Your task to perform on an android device: Add razer naga to the cart on amazon, then select checkout. Image 0: 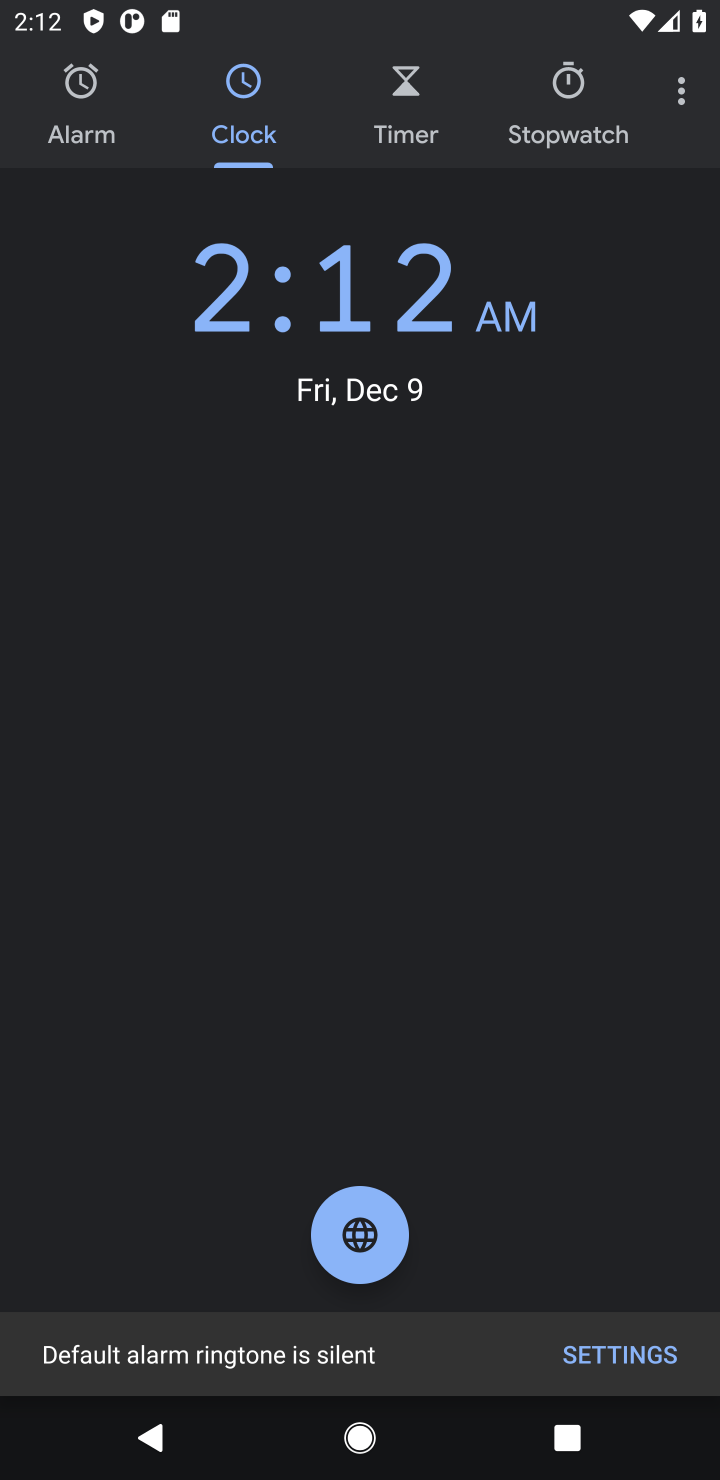
Step 0: press home button
Your task to perform on an android device: Add razer naga to the cart on amazon, then select checkout. Image 1: 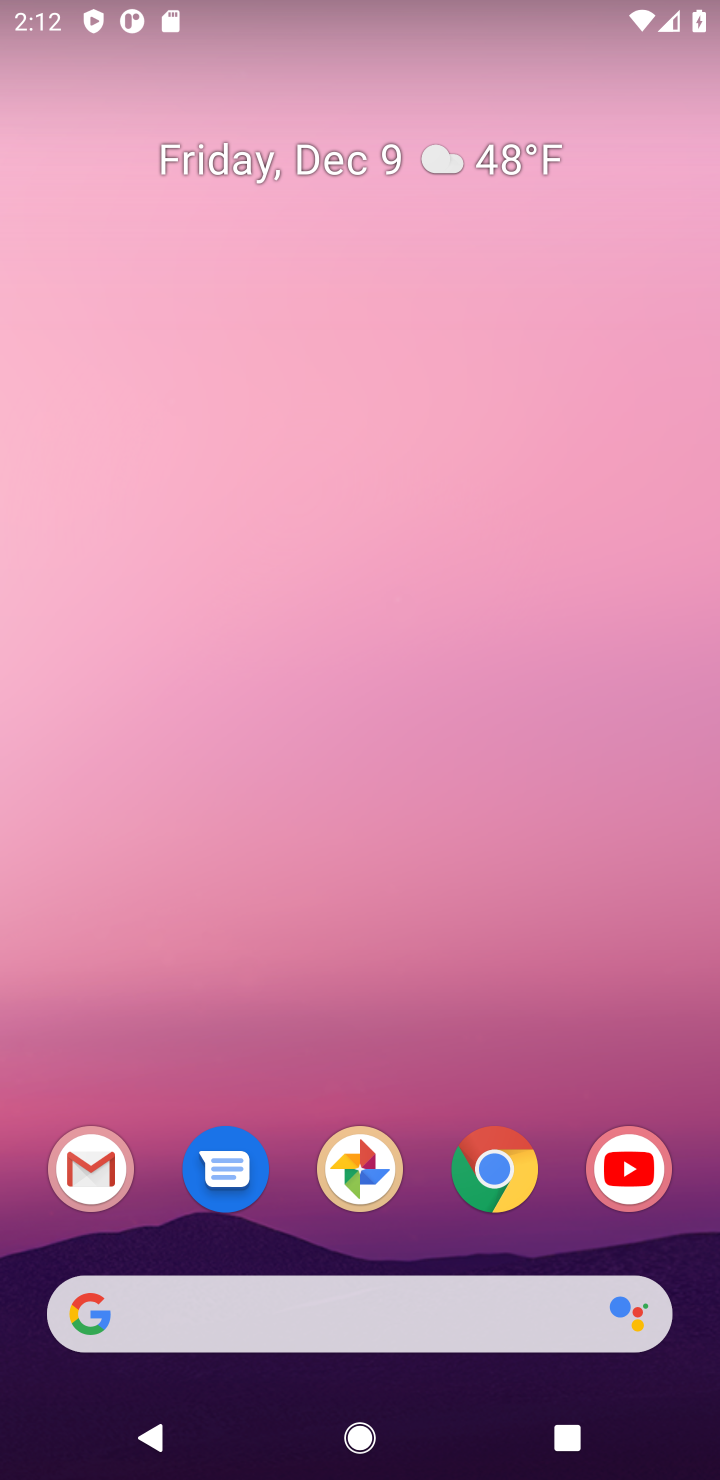
Step 1: click (498, 1179)
Your task to perform on an android device: Add razer naga to the cart on amazon, then select checkout. Image 2: 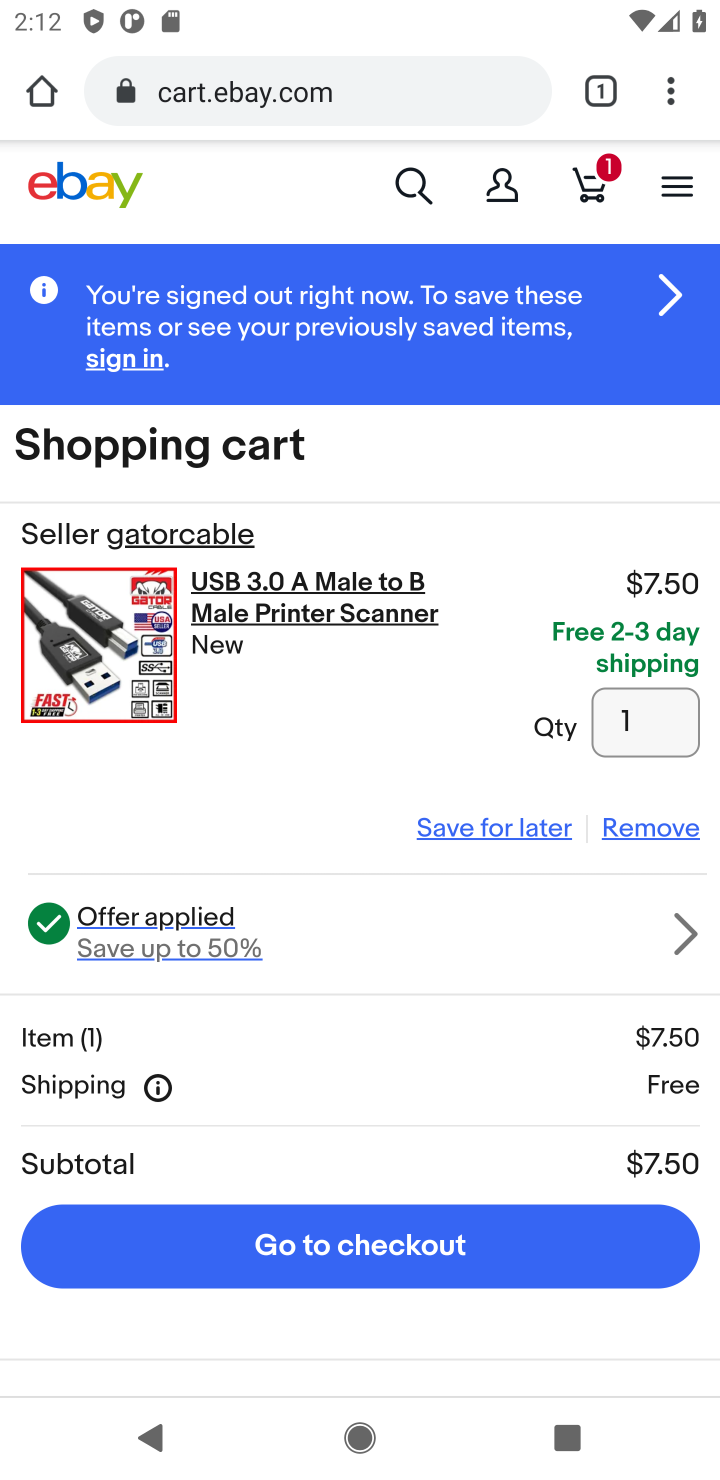
Step 2: click (427, 80)
Your task to perform on an android device: Add razer naga to the cart on amazon, then select checkout. Image 3: 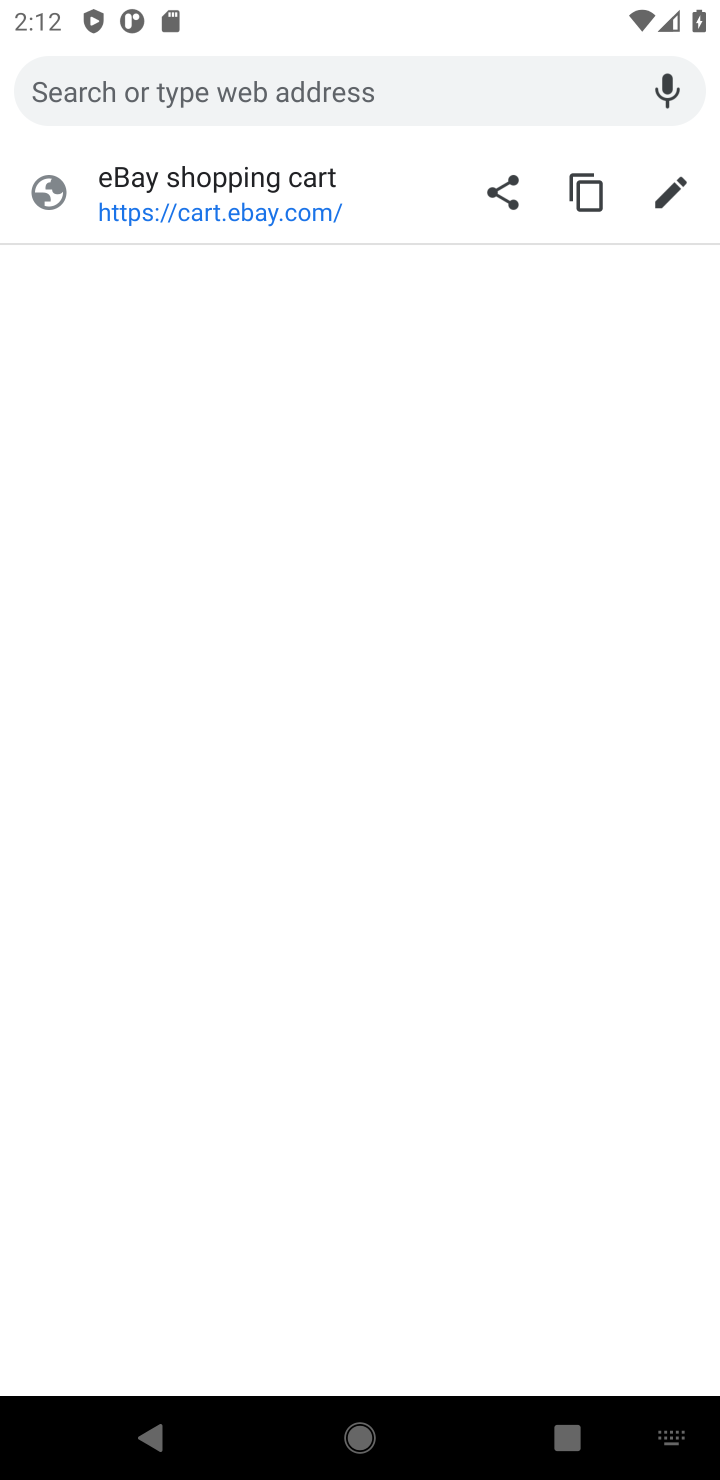
Step 3: press enter
Your task to perform on an android device: Add razer naga to the cart on amazon, then select checkout. Image 4: 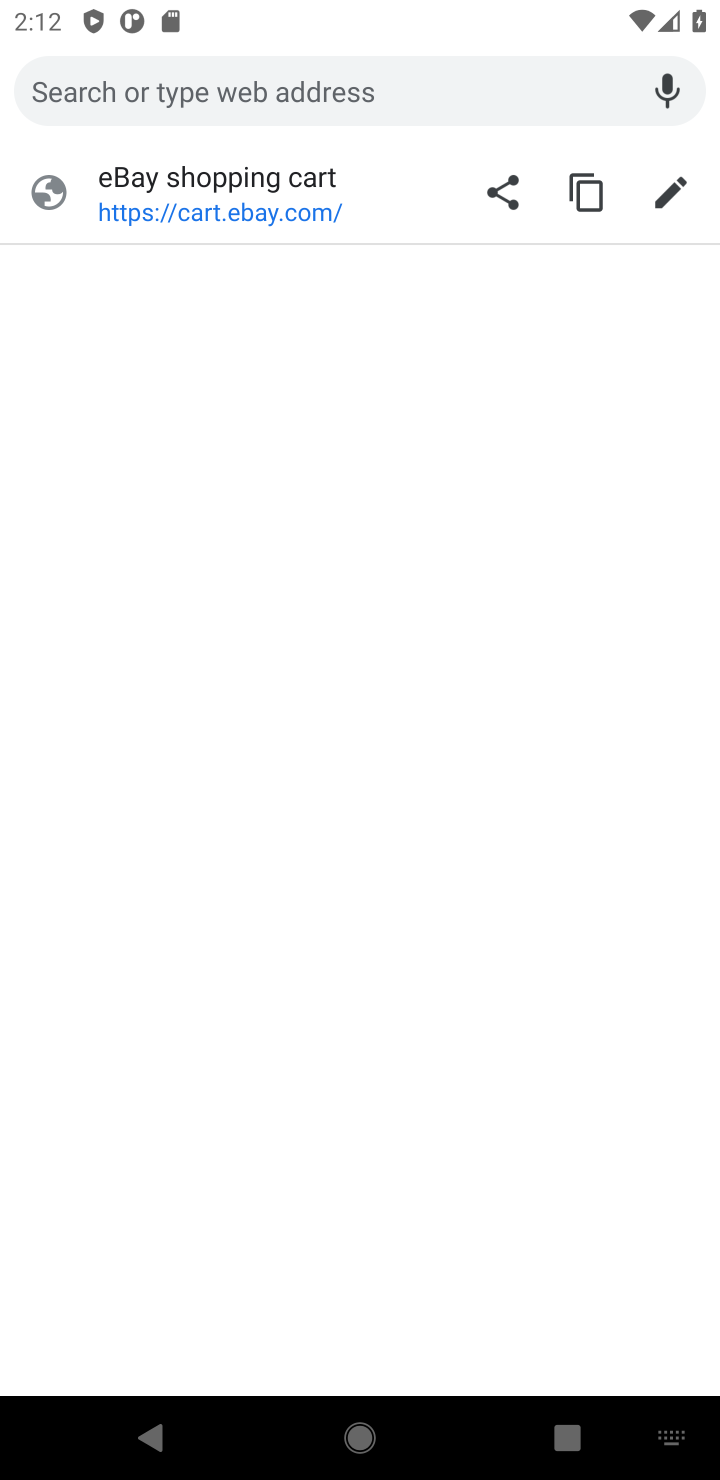
Step 4: type "amazon"
Your task to perform on an android device: Add razer naga to the cart on amazon, then select checkout. Image 5: 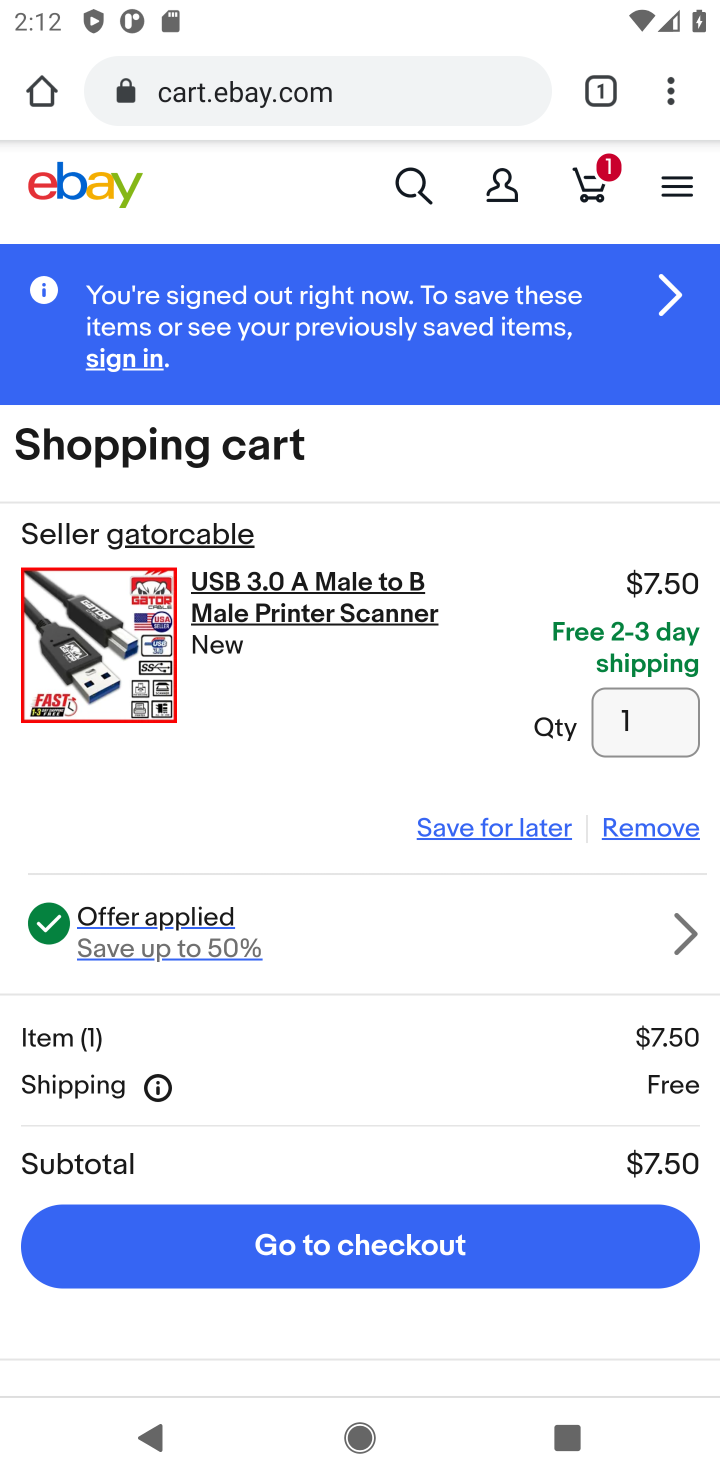
Step 5: click (503, 87)
Your task to perform on an android device: Add razer naga to the cart on amazon, then select checkout. Image 6: 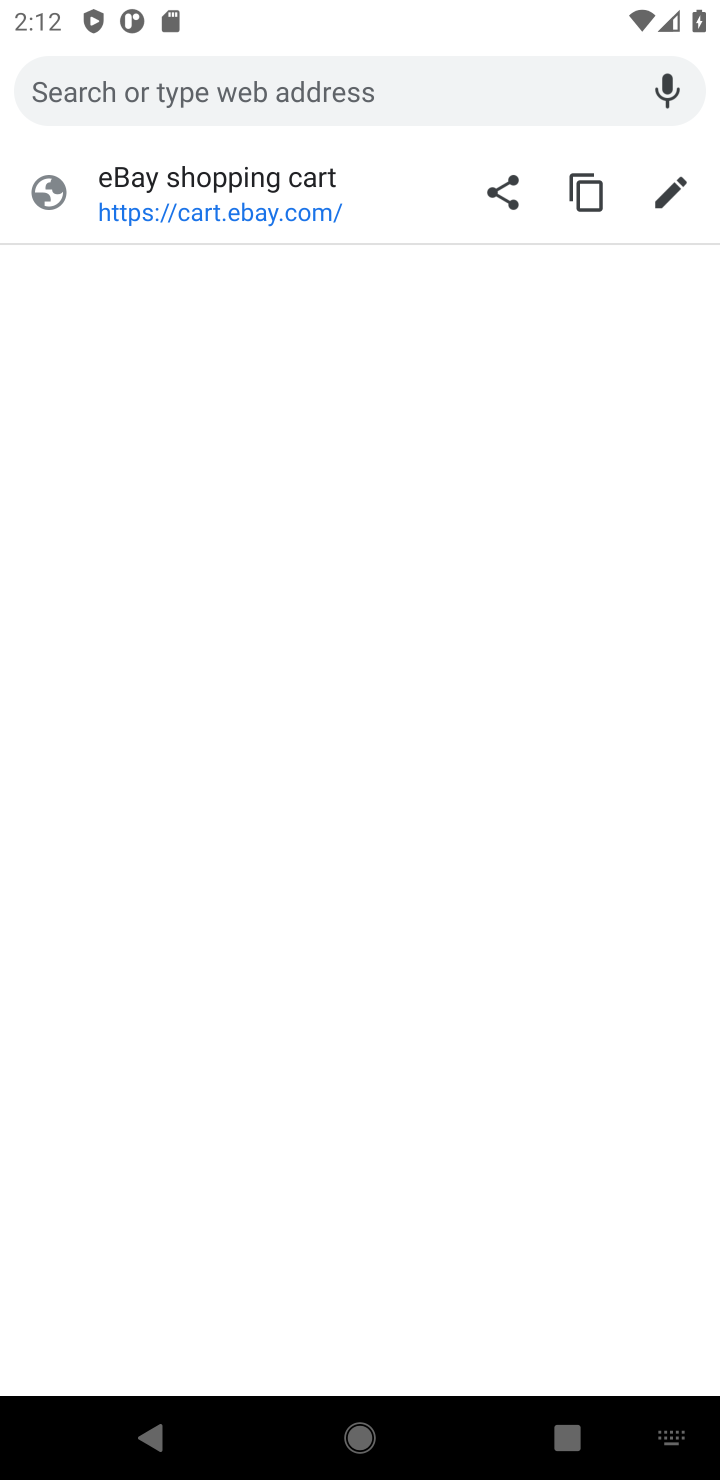
Step 6: press enter
Your task to perform on an android device: Add razer naga to the cart on amazon, then select checkout. Image 7: 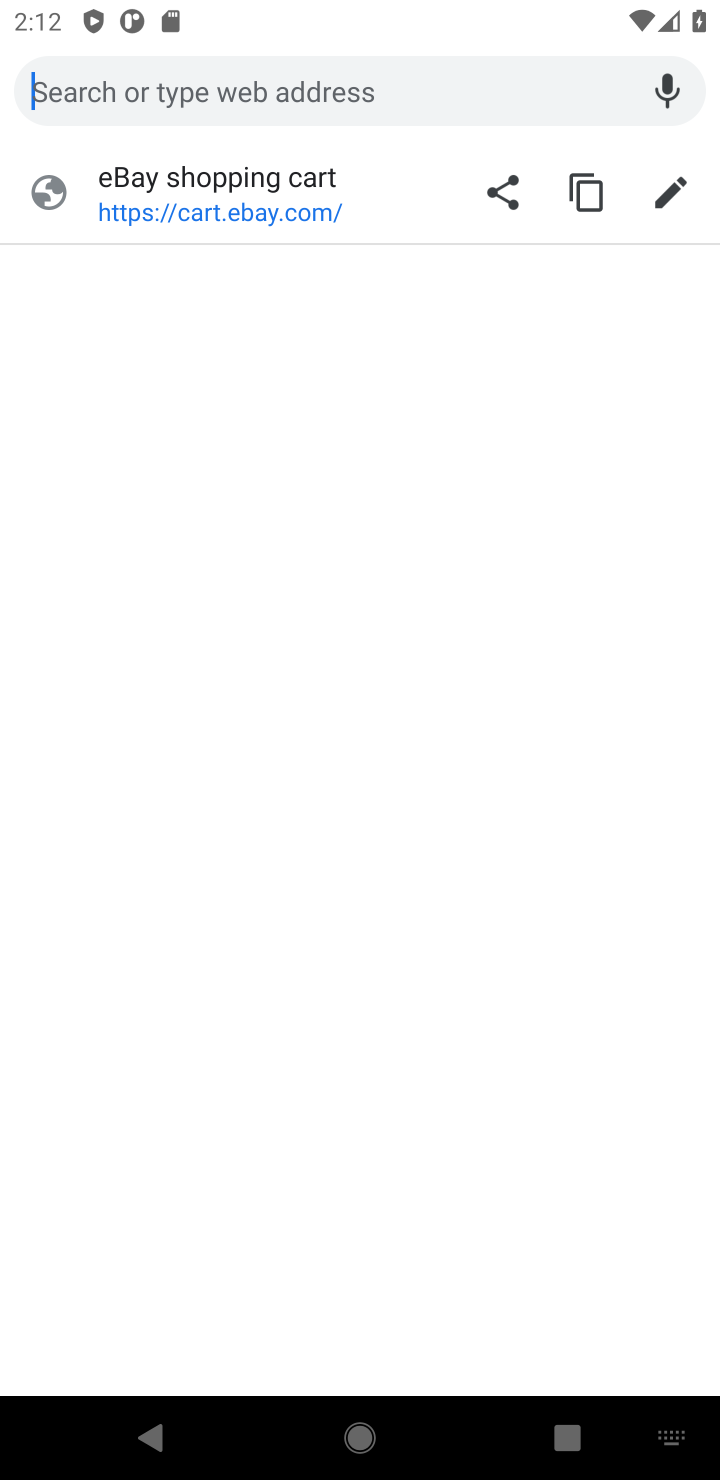
Step 7: type "amazon"
Your task to perform on an android device: Add razer naga to the cart on amazon, then select checkout. Image 8: 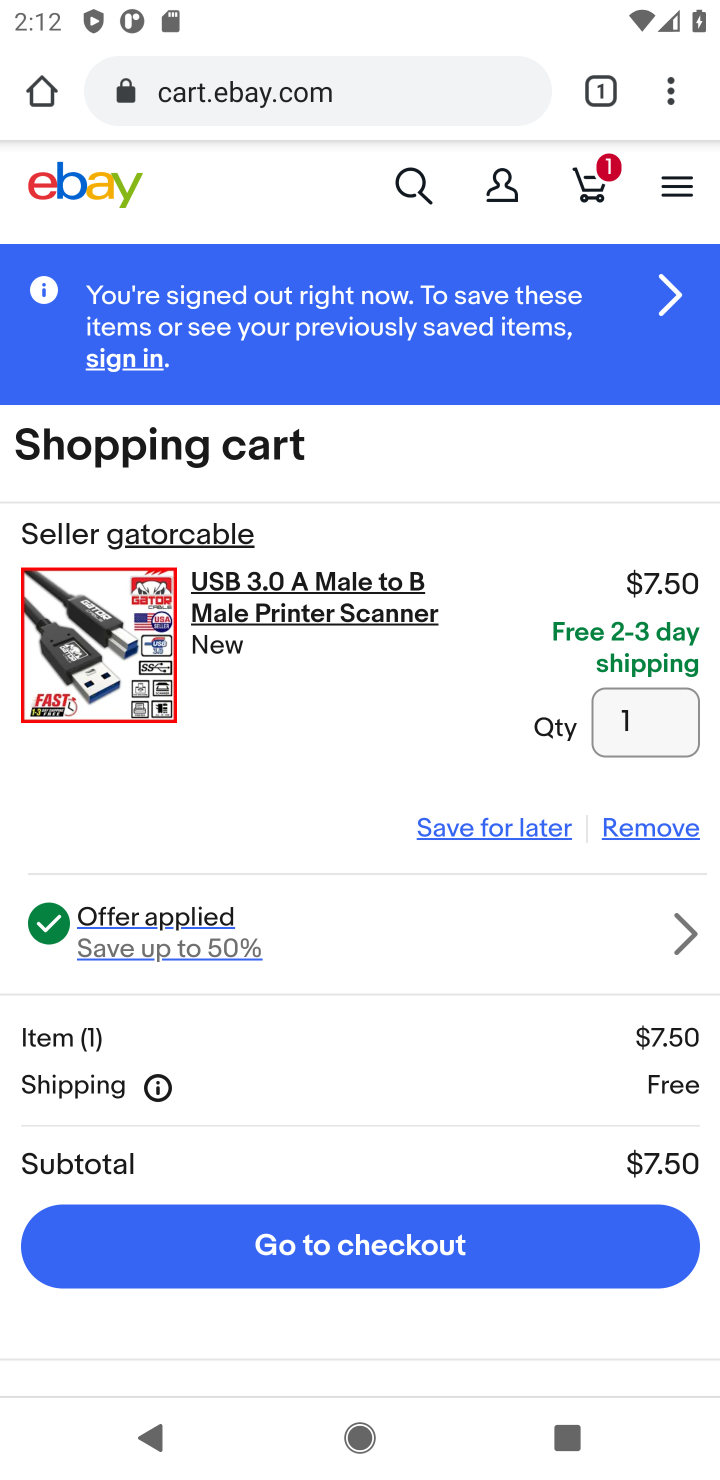
Step 8: click (46, 95)
Your task to perform on an android device: Add razer naga to the cart on amazon, then select checkout. Image 9: 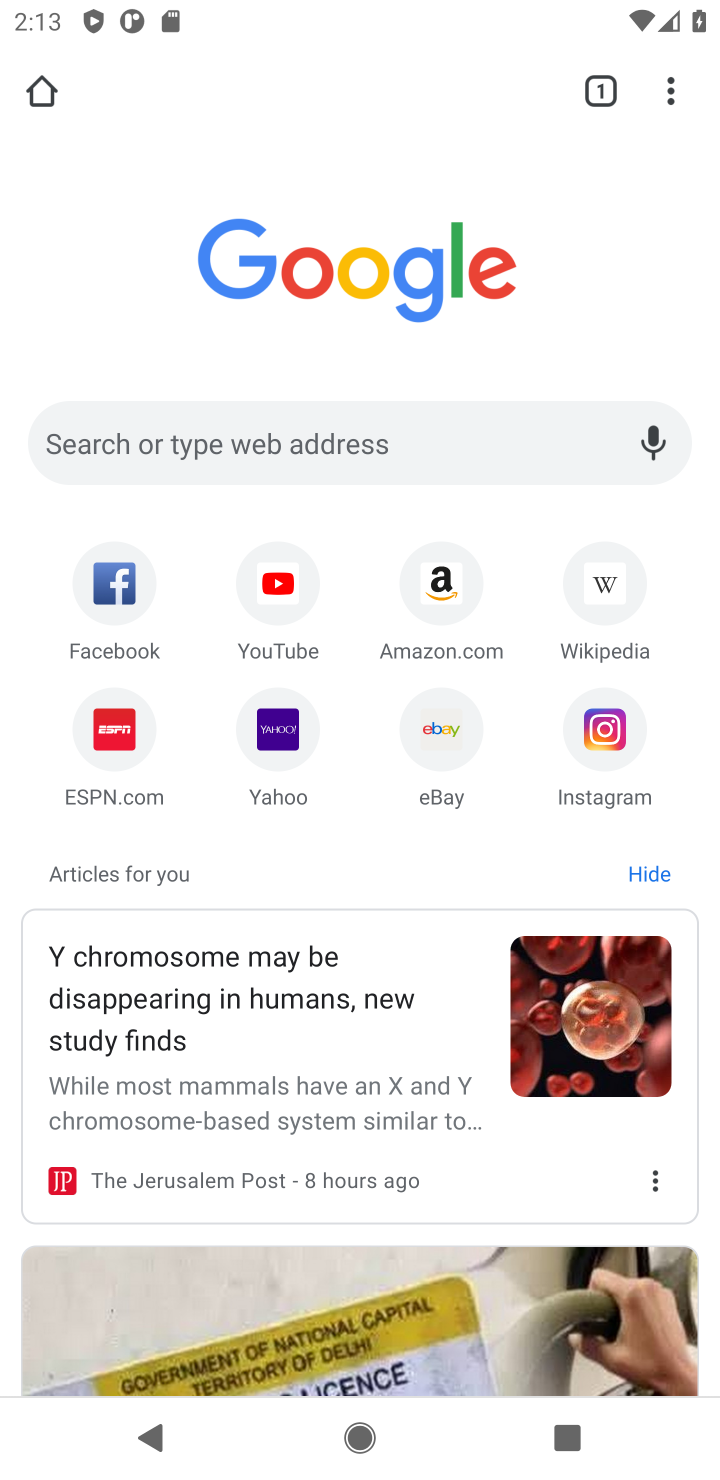
Step 9: click (490, 442)
Your task to perform on an android device: Add razer naga to the cart on amazon, then select checkout. Image 10: 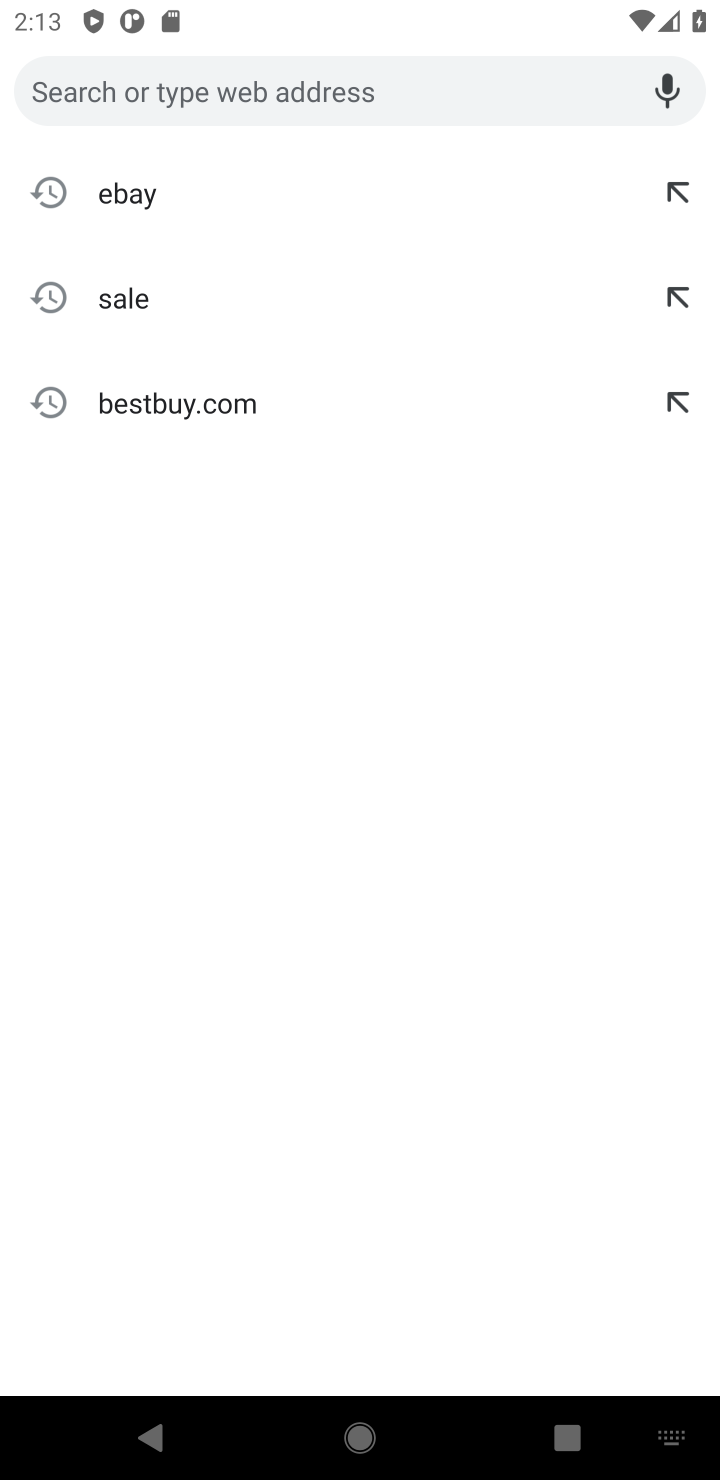
Step 10: press enter
Your task to perform on an android device: Add razer naga to the cart on amazon, then select checkout. Image 11: 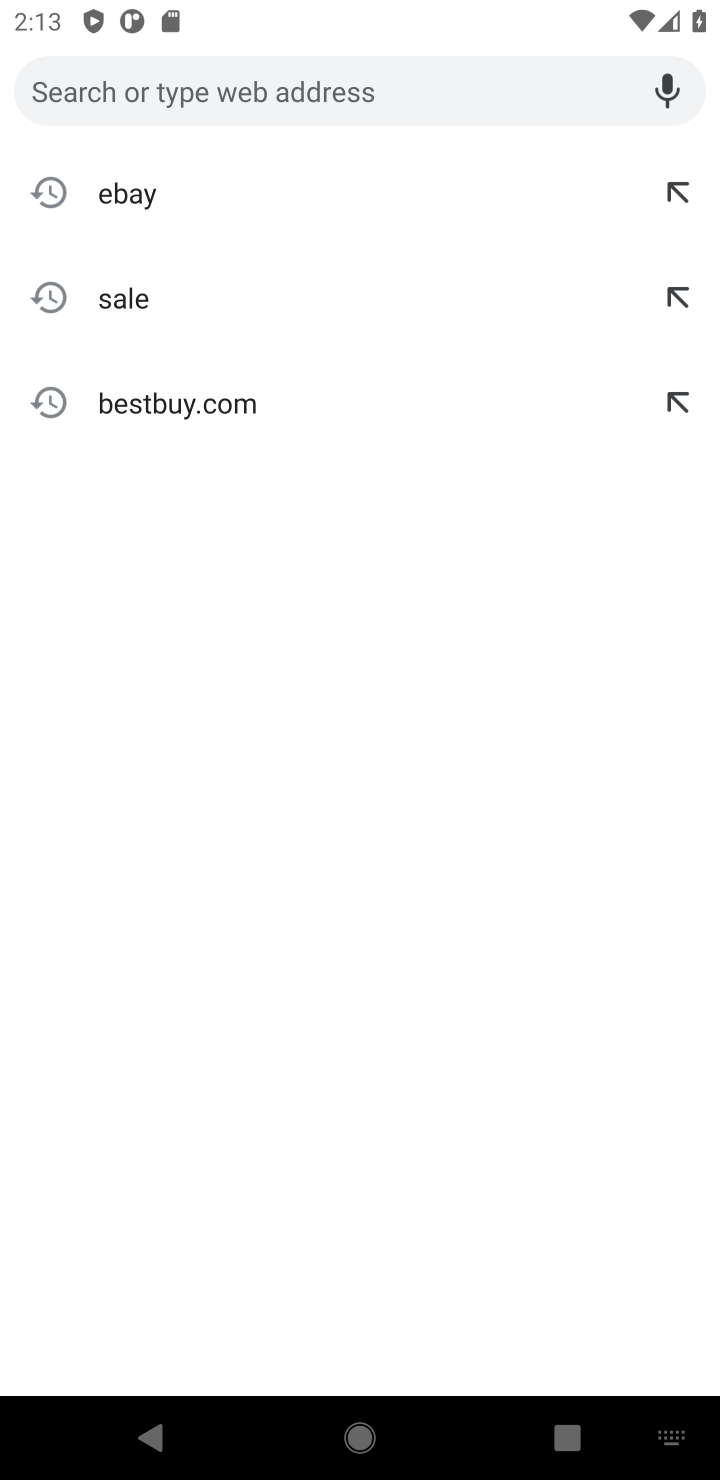
Step 11: type "amazon"
Your task to perform on an android device: Add razer naga to the cart on amazon, then select checkout. Image 12: 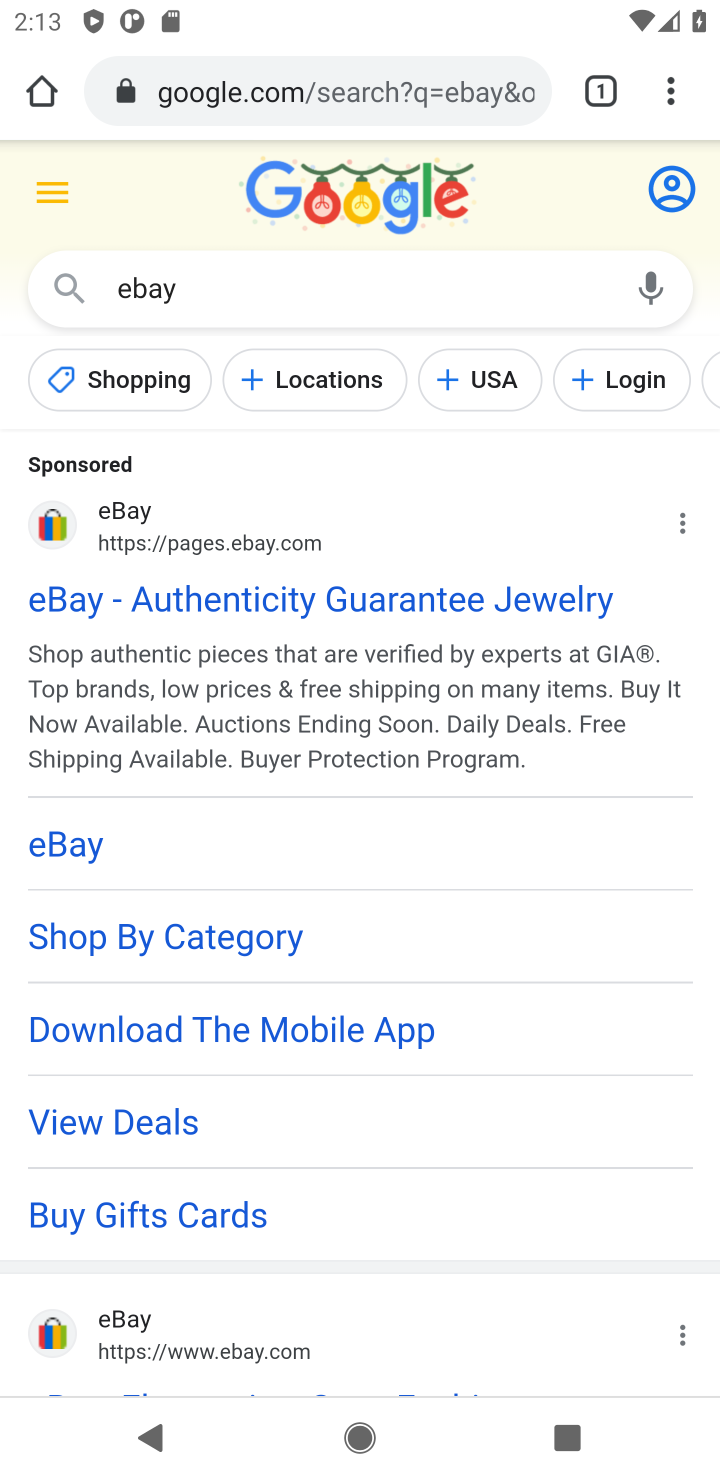
Step 12: click (35, 98)
Your task to perform on an android device: Add razer naga to the cart on amazon, then select checkout. Image 13: 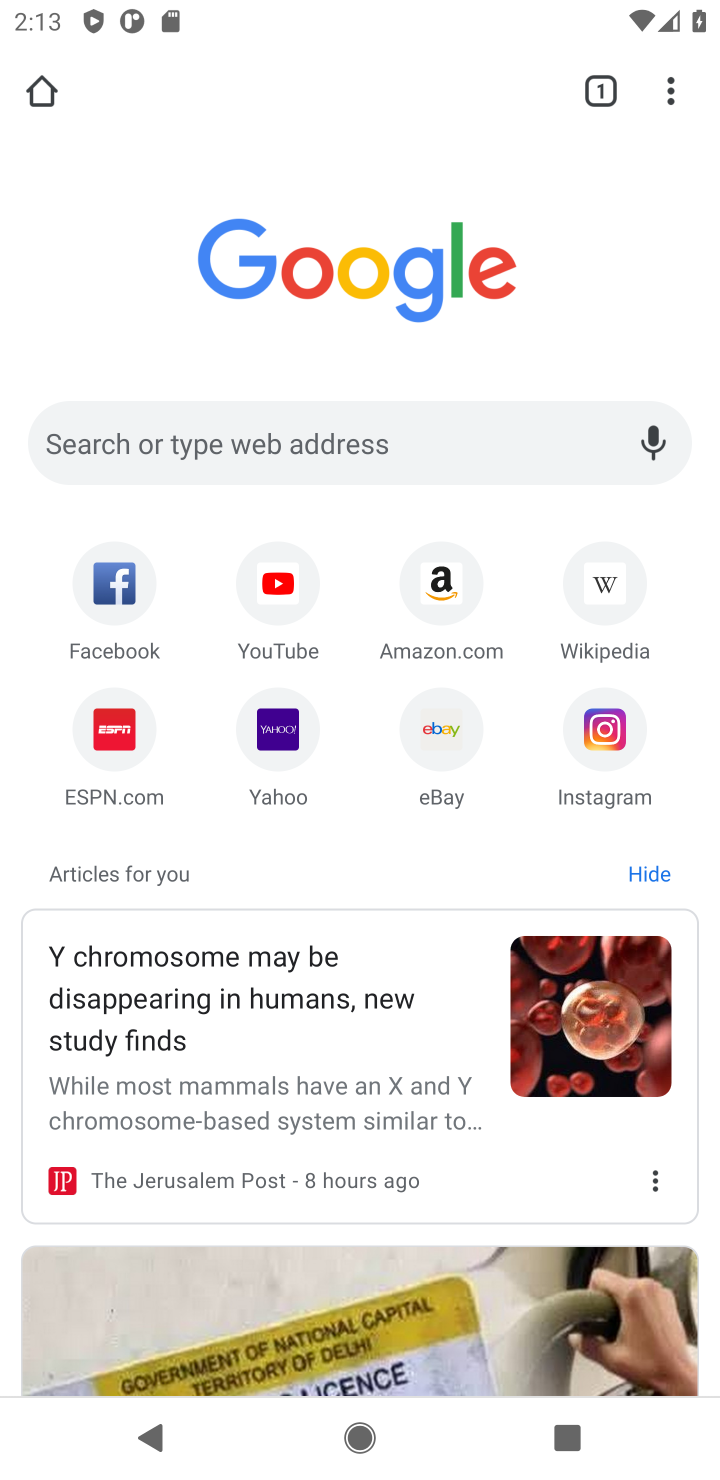
Step 13: click (445, 576)
Your task to perform on an android device: Add razer naga to the cart on amazon, then select checkout. Image 14: 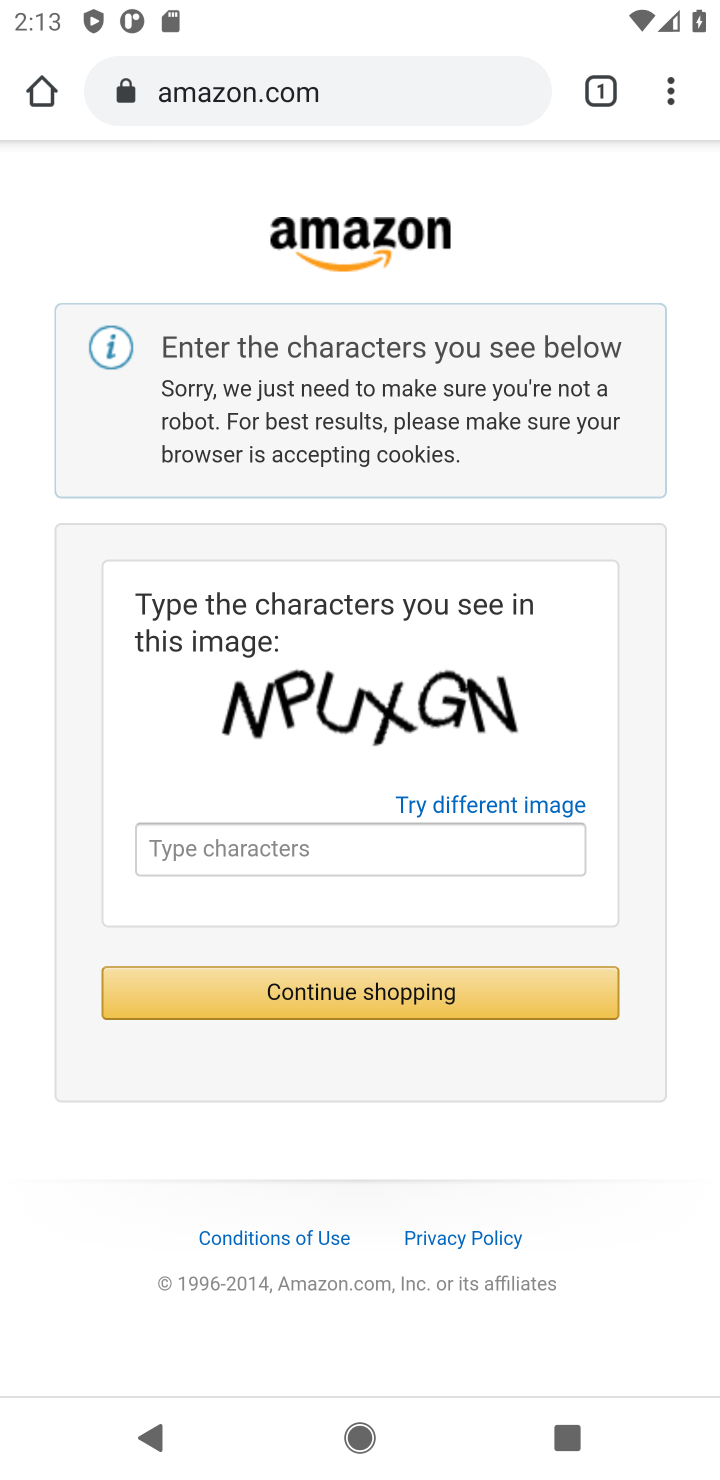
Step 14: press back button
Your task to perform on an android device: Add razer naga to the cart on amazon, then select checkout. Image 15: 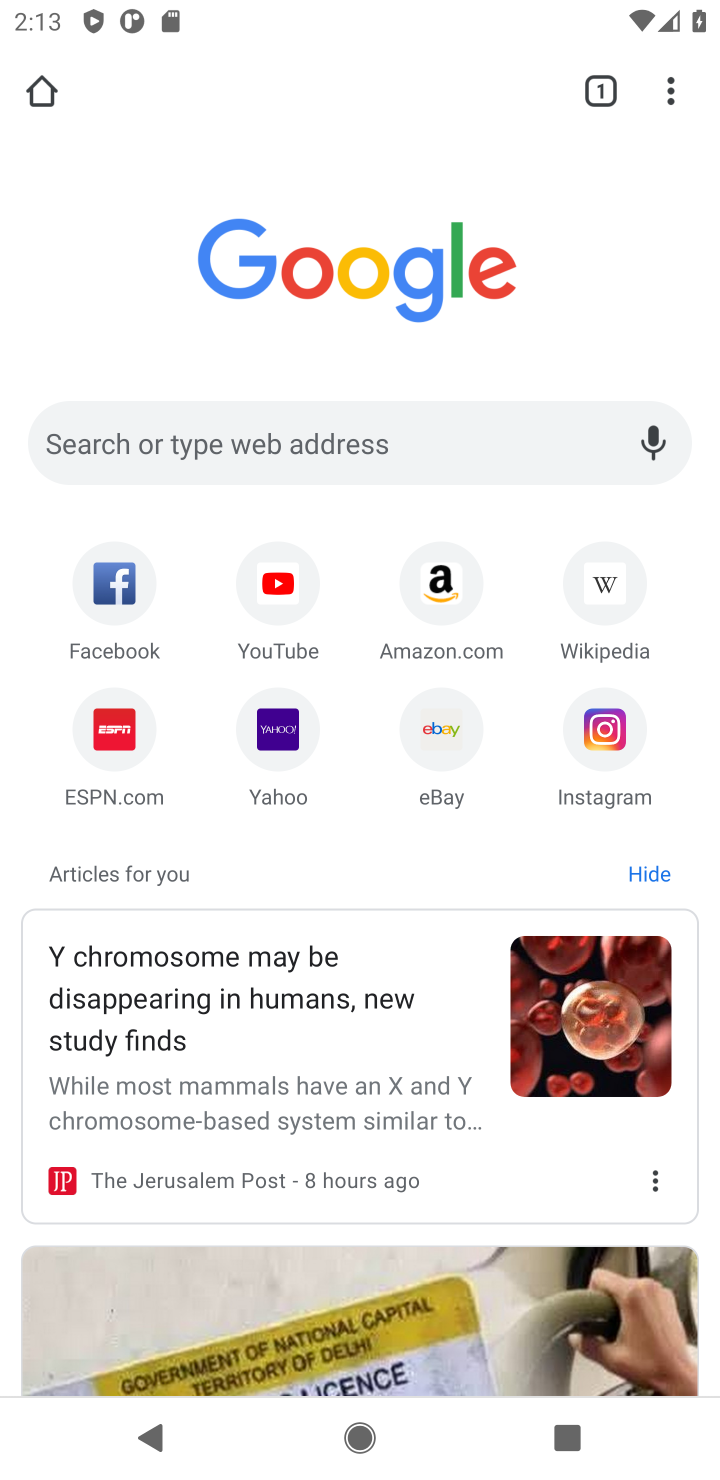
Step 15: click (346, 454)
Your task to perform on an android device: Add razer naga to the cart on amazon, then select checkout. Image 16: 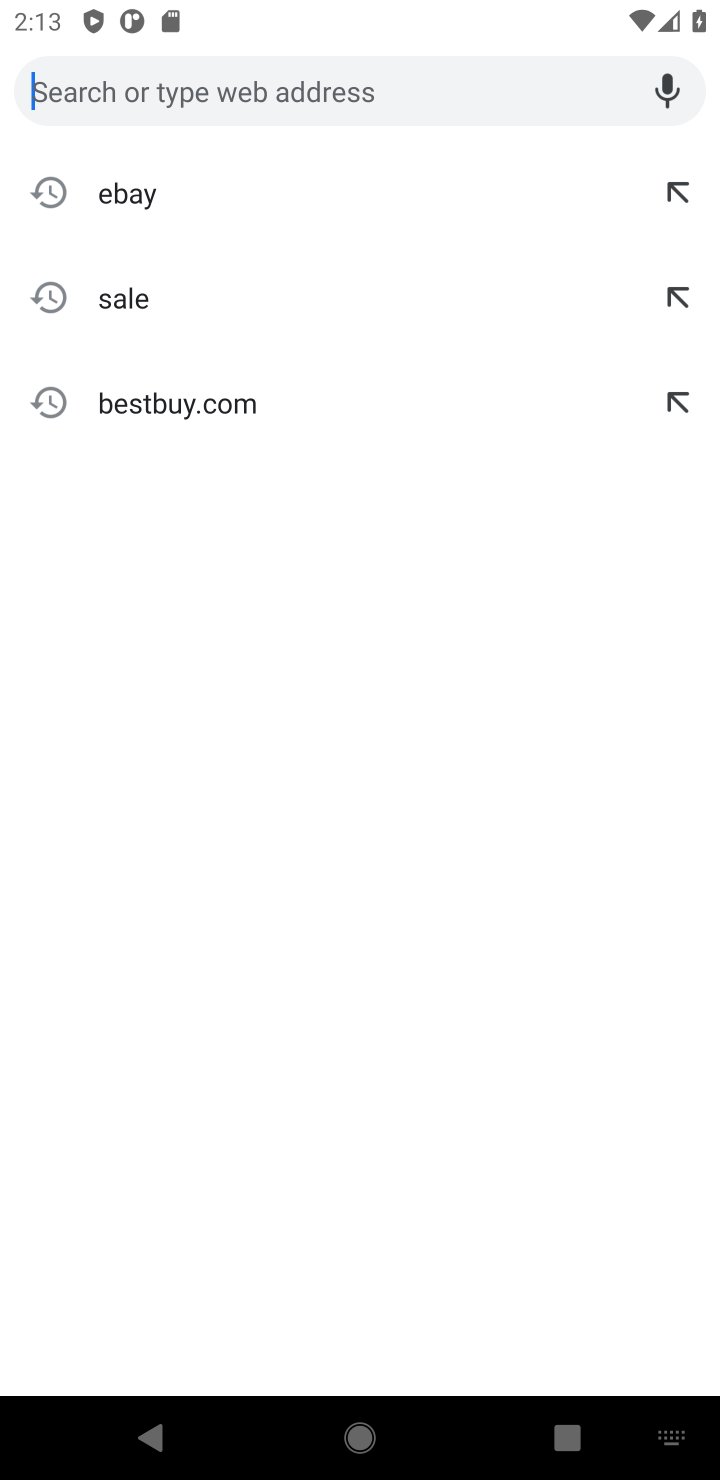
Step 16: type "amazon"
Your task to perform on an android device: Add razer naga to the cart on amazon, then select checkout. Image 17: 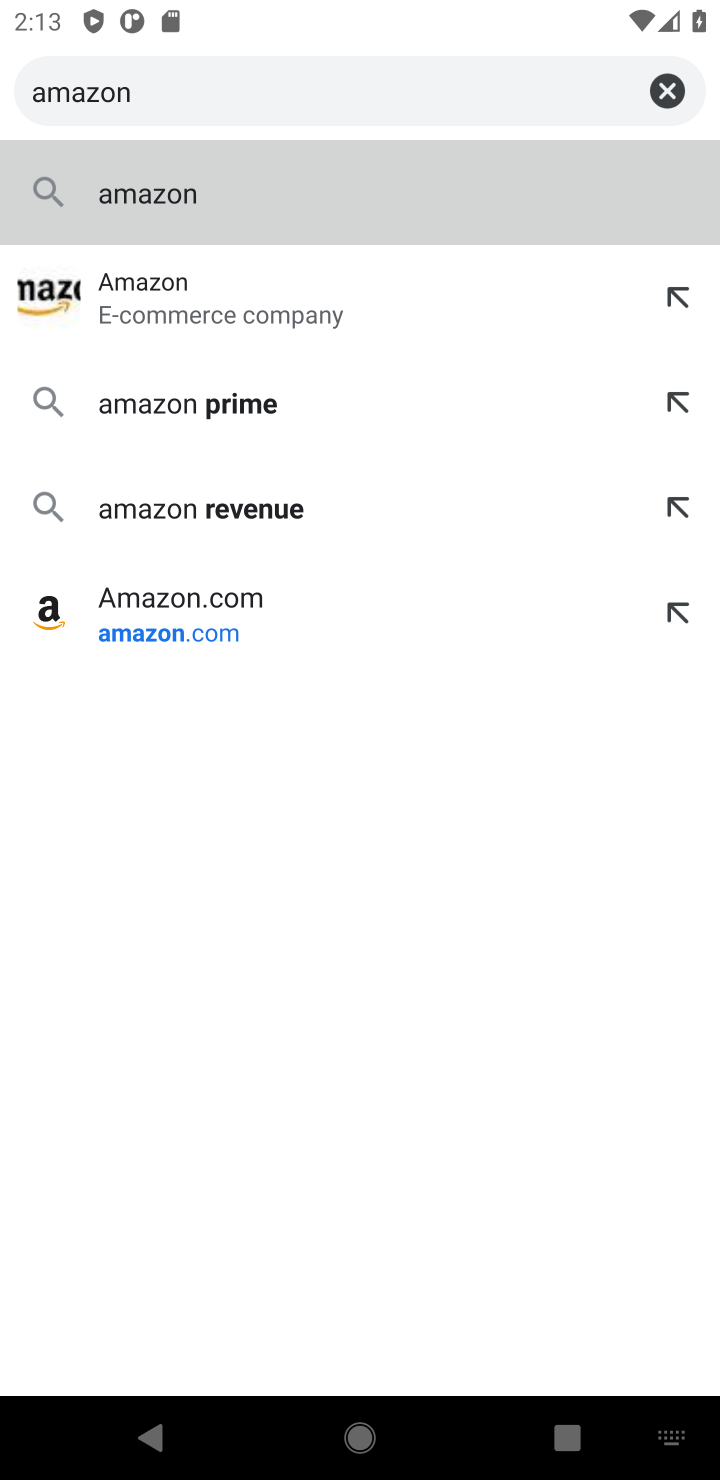
Step 17: press enter
Your task to perform on an android device: Add razer naga to the cart on amazon, then select checkout. Image 18: 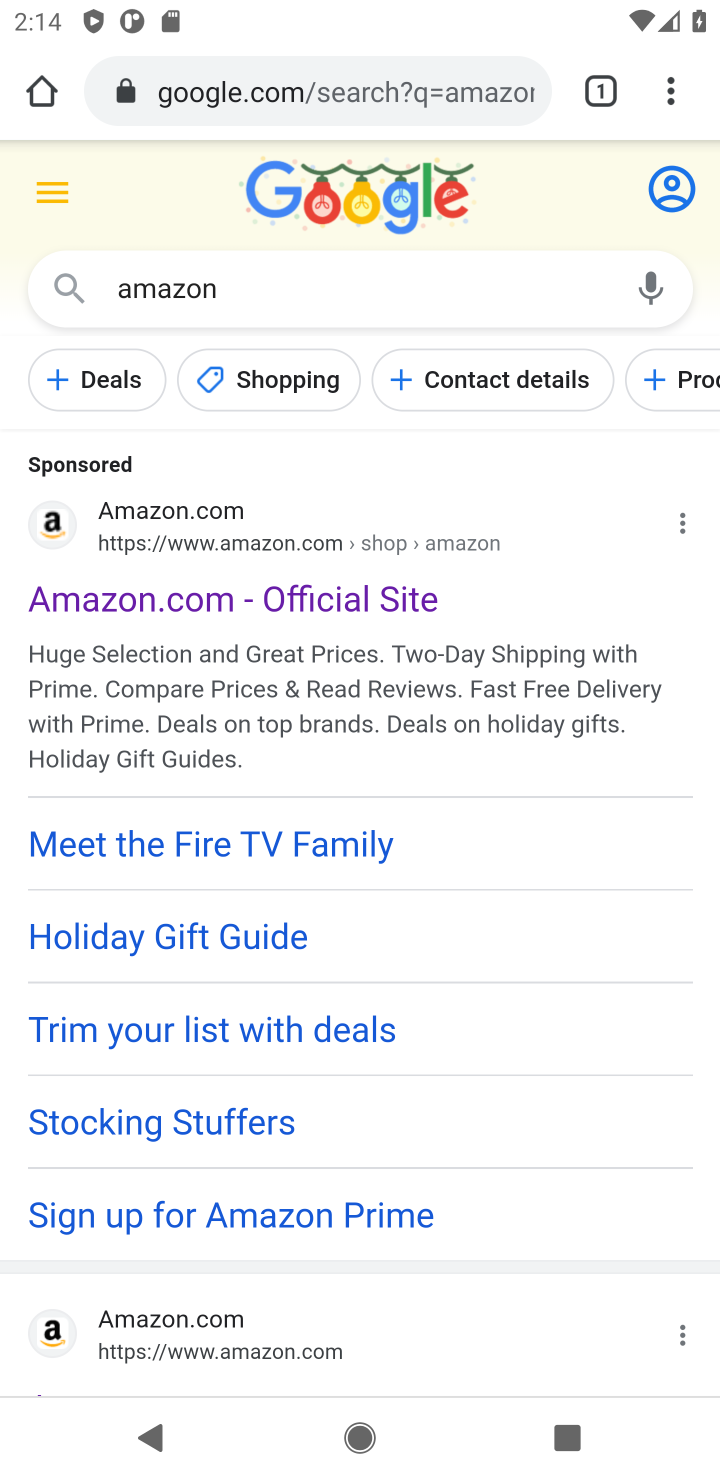
Step 18: click (250, 544)
Your task to perform on an android device: Add razer naga to the cart on amazon, then select checkout. Image 19: 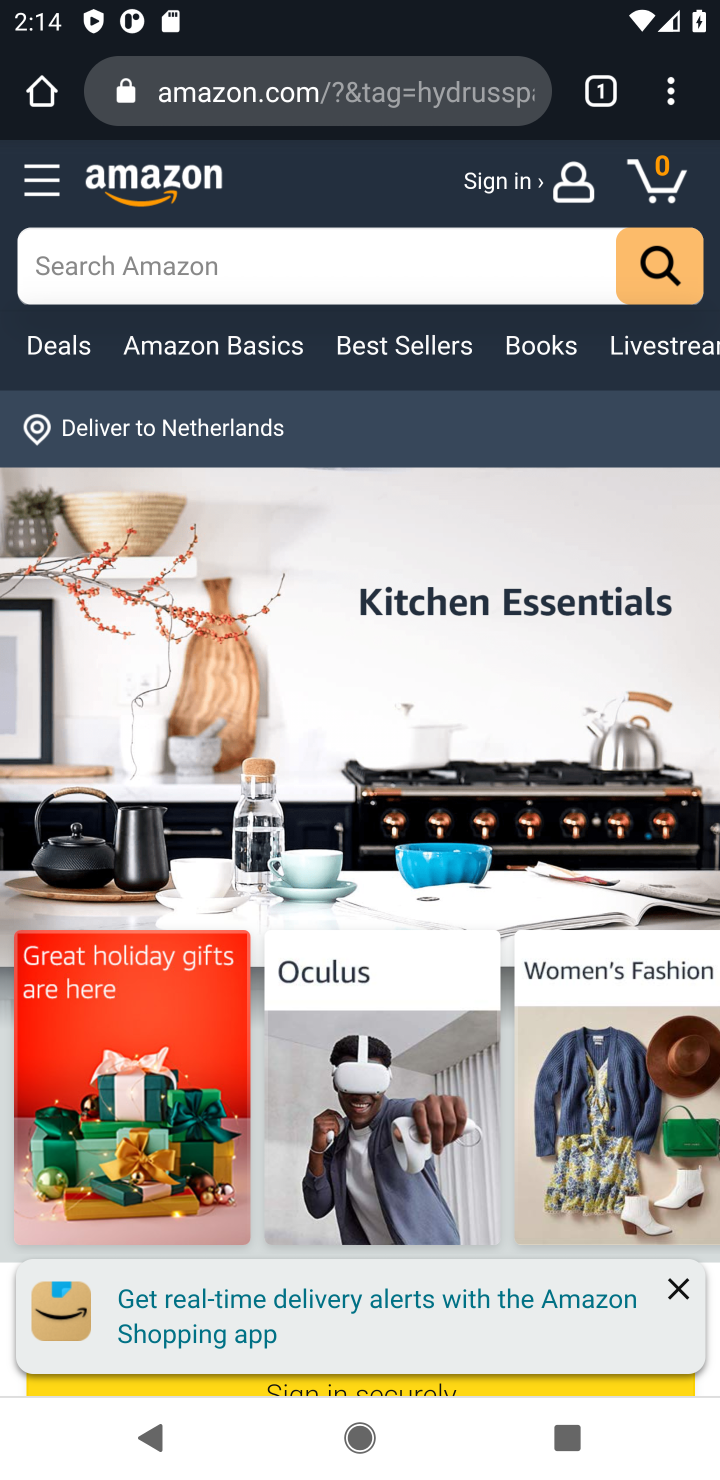
Step 19: click (211, 258)
Your task to perform on an android device: Add razer naga to the cart on amazon, then select checkout. Image 20: 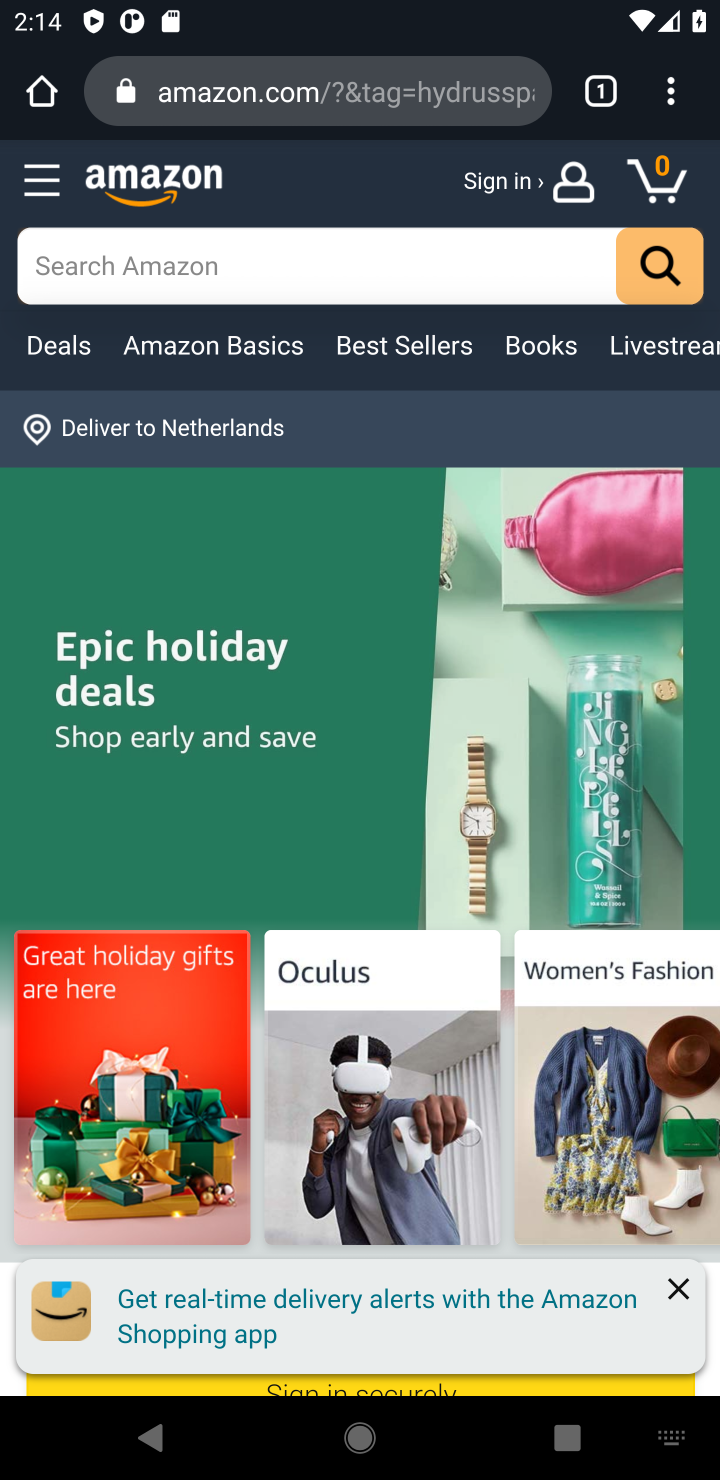
Step 20: type " razer naga"
Your task to perform on an android device: Add razer naga to the cart on amazon, then select checkout. Image 21: 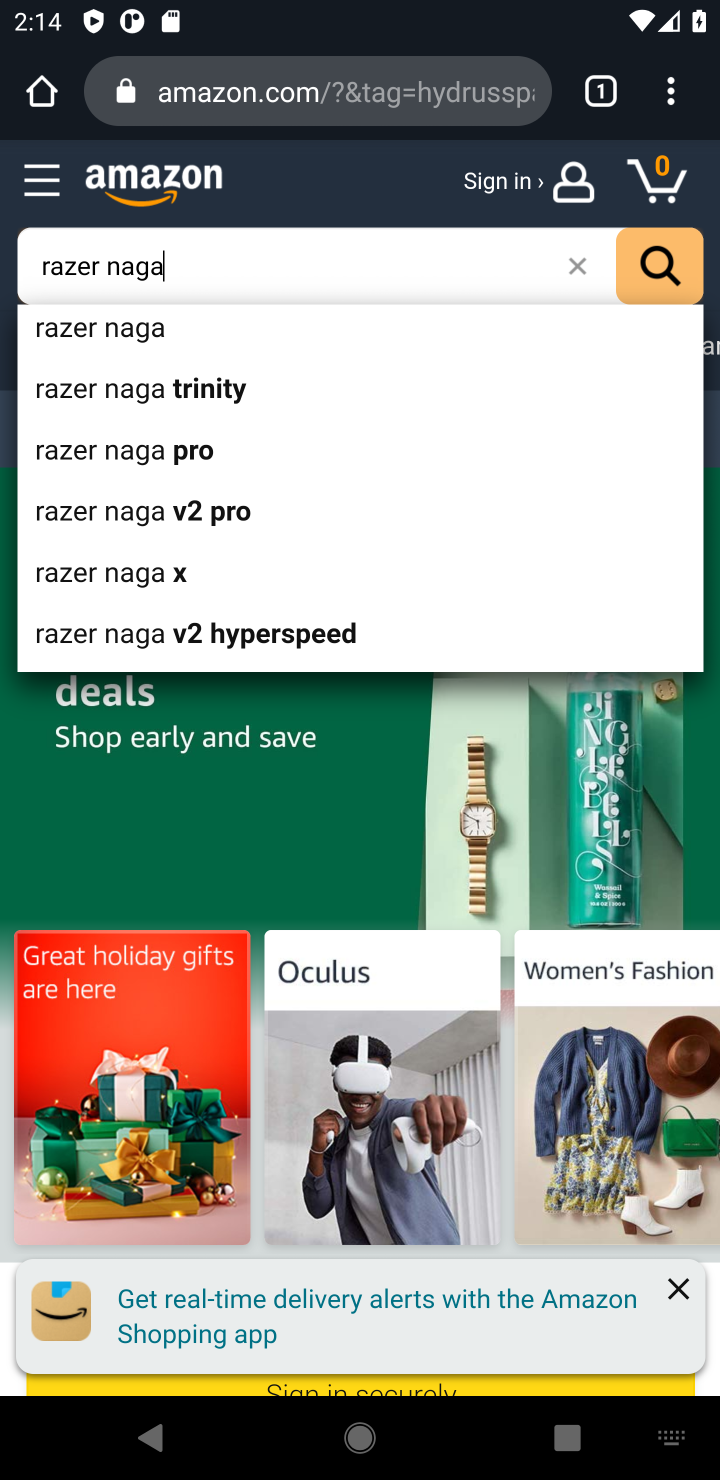
Step 21: click (140, 320)
Your task to perform on an android device: Add razer naga to the cart on amazon, then select checkout. Image 22: 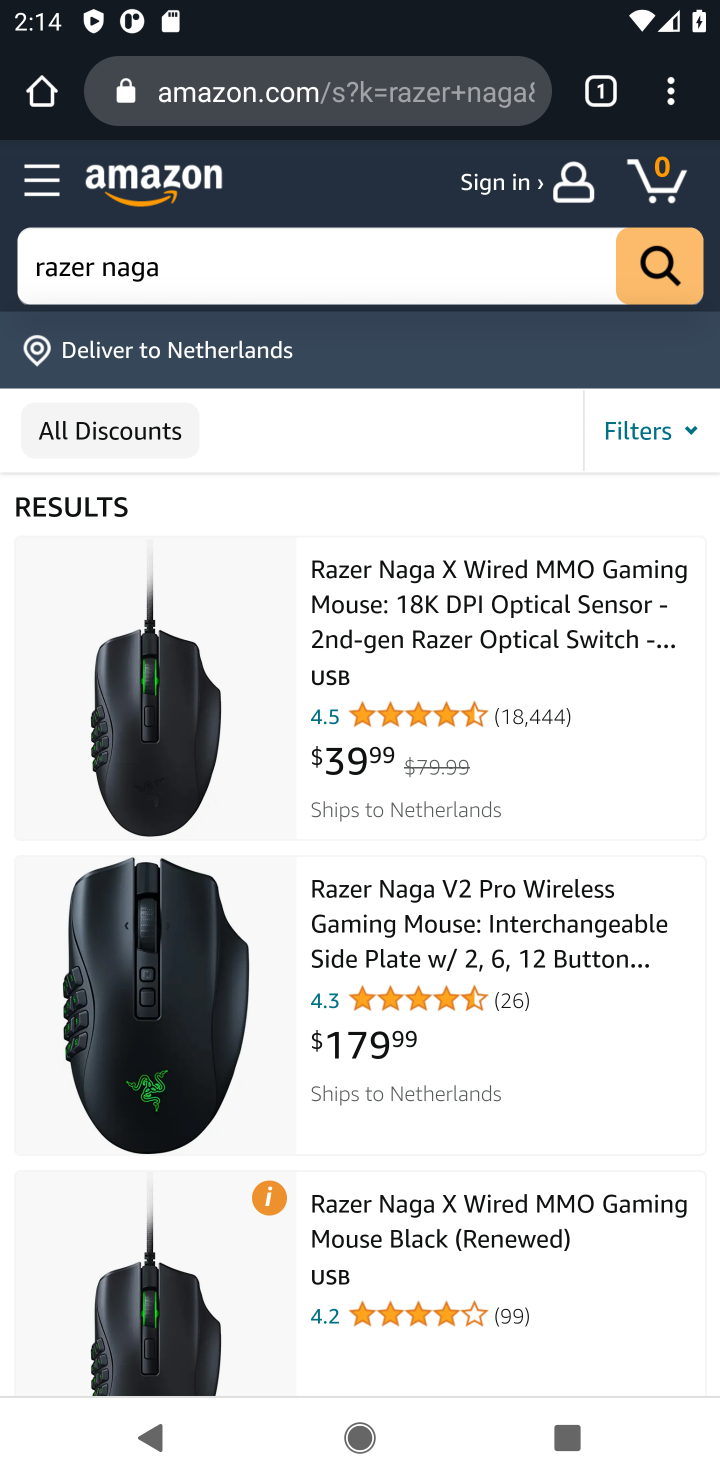
Step 22: click (248, 691)
Your task to perform on an android device: Add razer naga to the cart on amazon, then select checkout. Image 23: 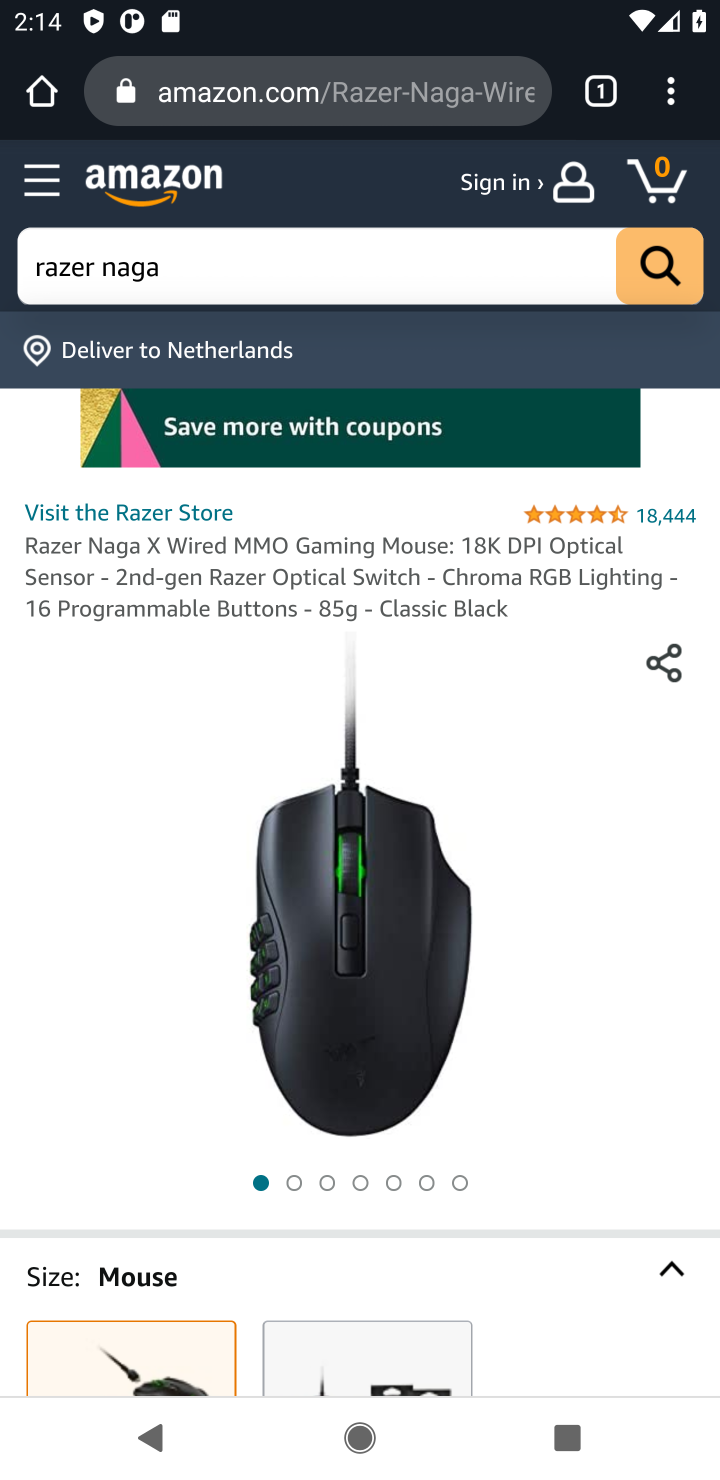
Step 23: drag from (497, 1003) to (335, 255)
Your task to perform on an android device: Add razer naga to the cart on amazon, then select checkout. Image 24: 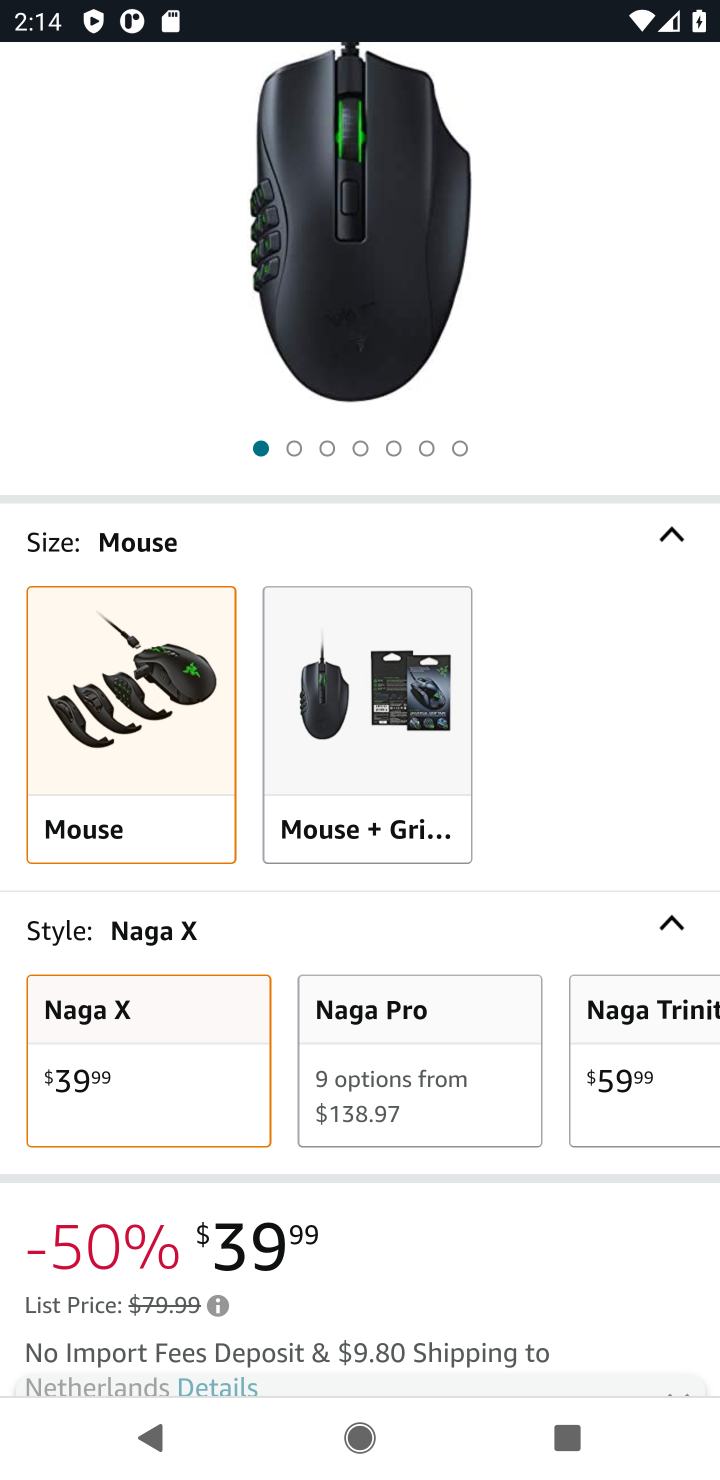
Step 24: drag from (475, 1227) to (559, 194)
Your task to perform on an android device: Add razer naga to the cart on amazon, then select checkout. Image 25: 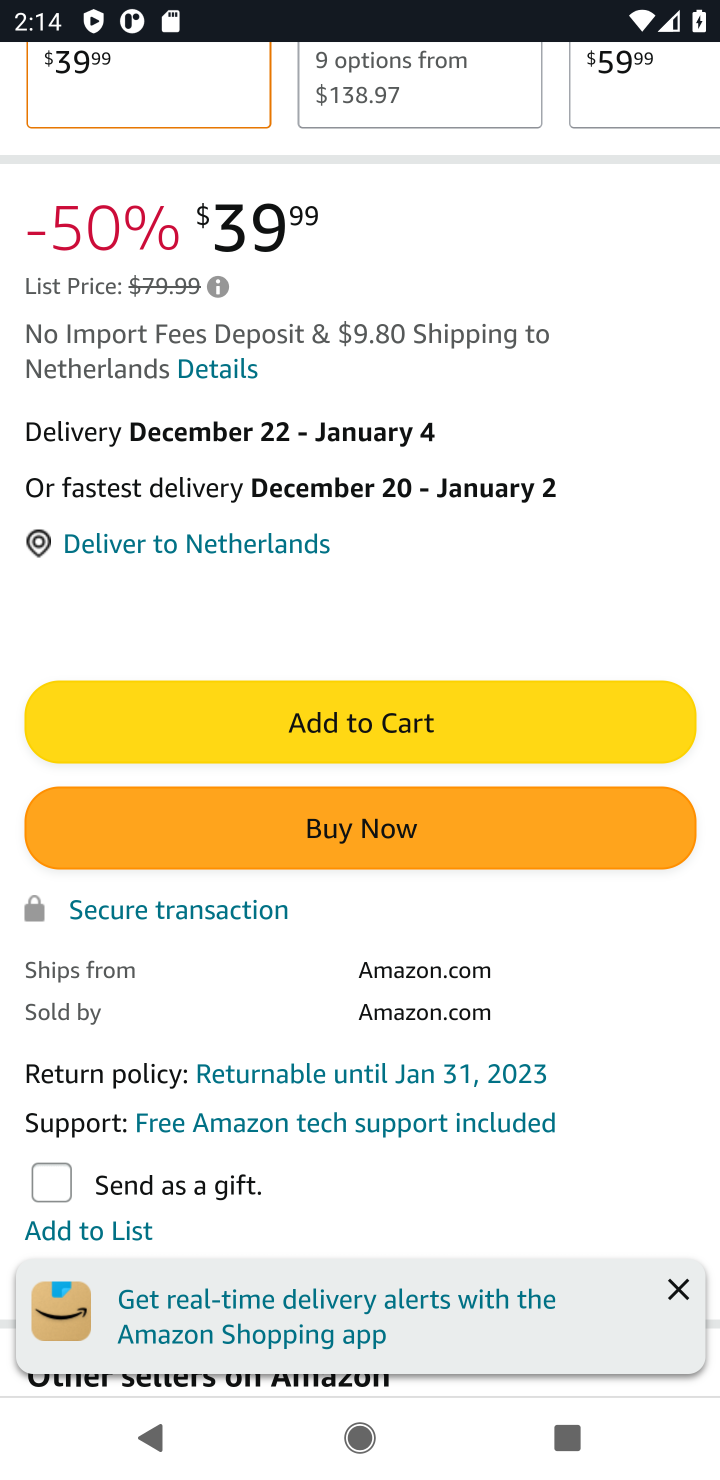
Step 25: click (356, 708)
Your task to perform on an android device: Add razer naga to the cart on amazon, then select checkout. Image 26: 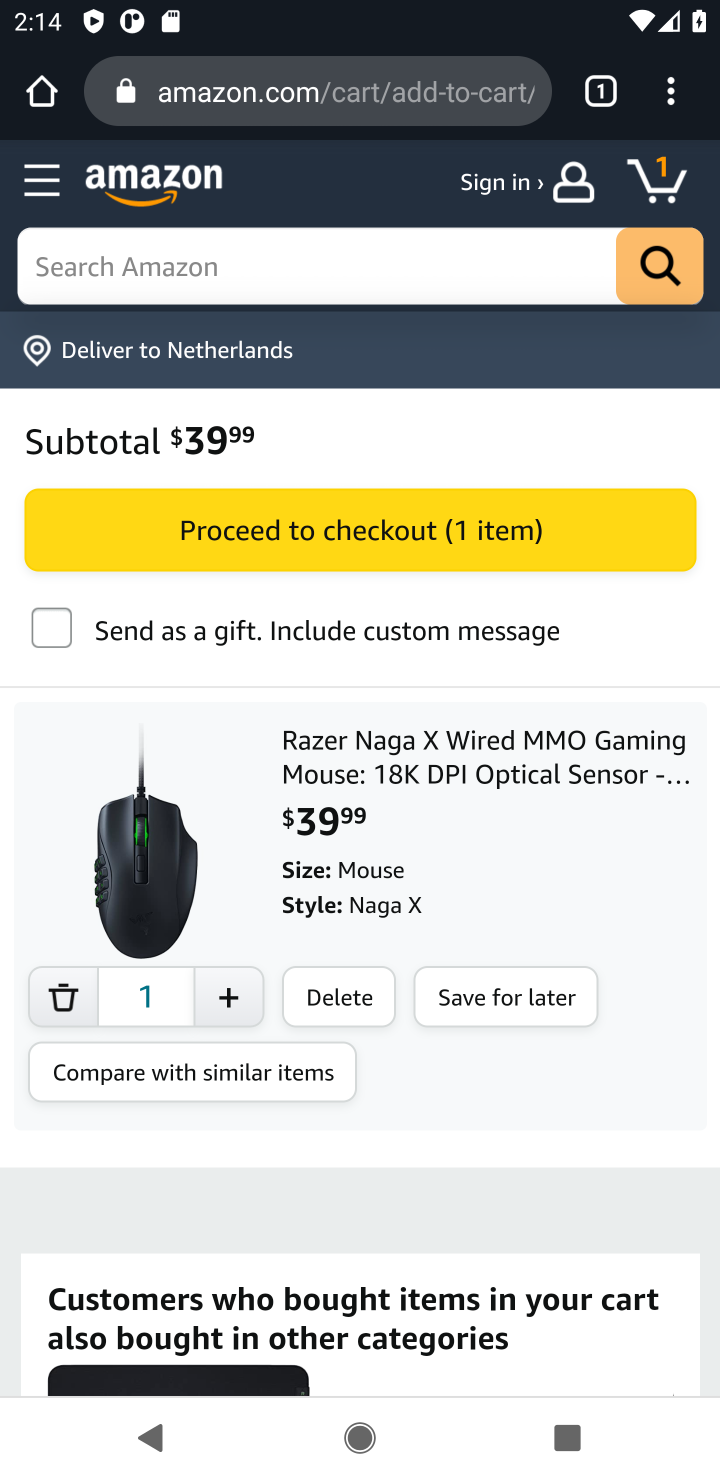
Step 26: click (410, 531)
Your task to perform on an android device: Add razer naga to the cart on amazon, then select checkout. Image 27: 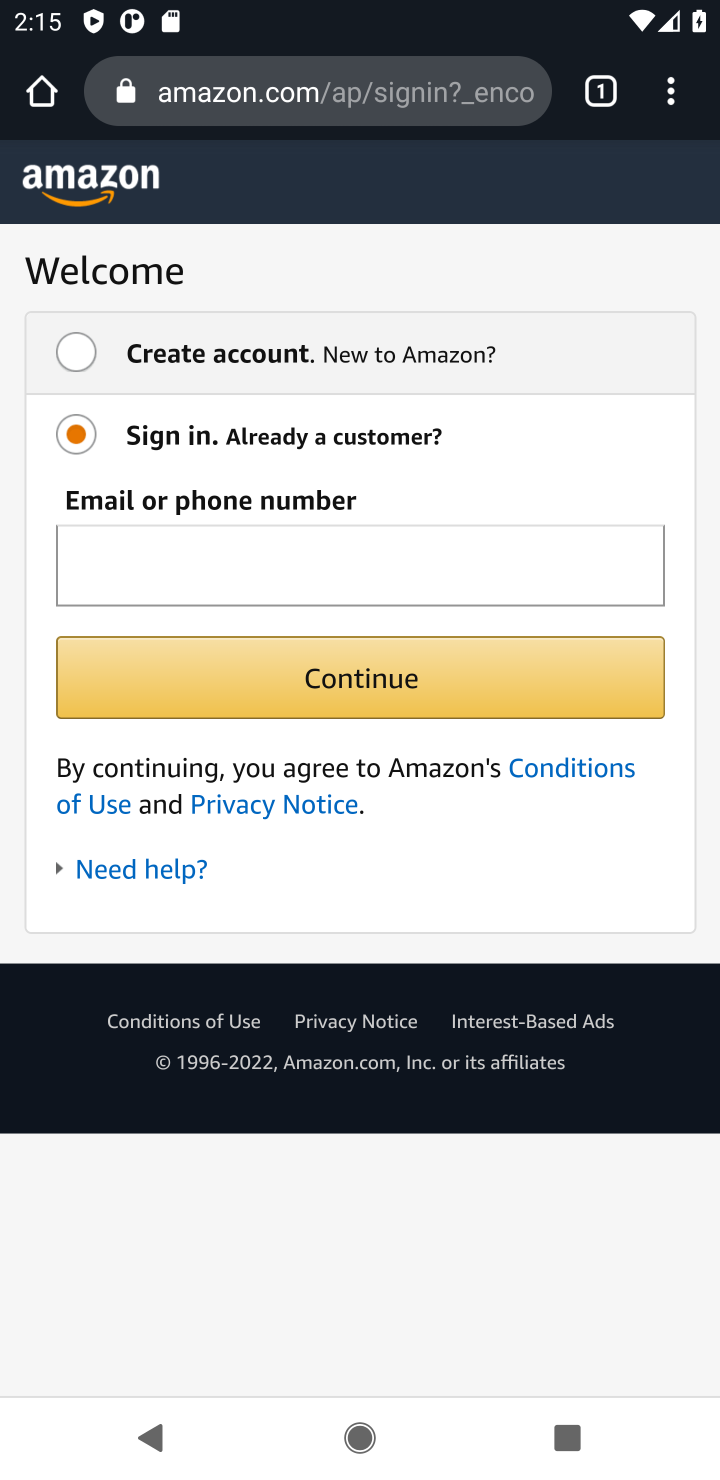
Step 27: task complete